Your task to perform on an android device: uninstall "LinkedIn" Image 0: 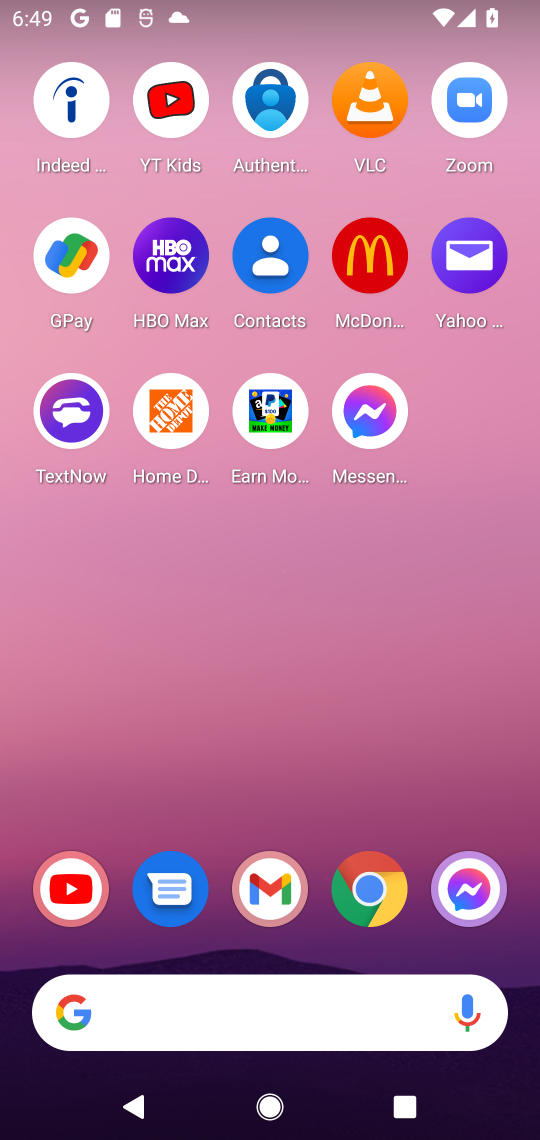
Step 0: press home button
Your task to perform on an android device: uninstall "LinkedIn" Image 1: 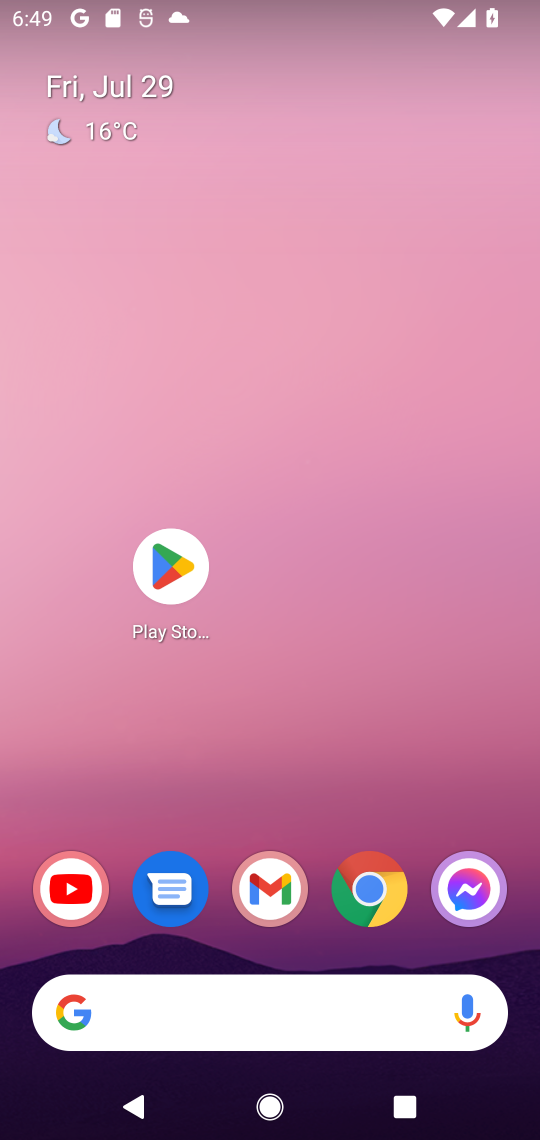
Step 1: click (163, 577)
Your task to perform on an android device: uninstall "LinkedIn" Image 2: 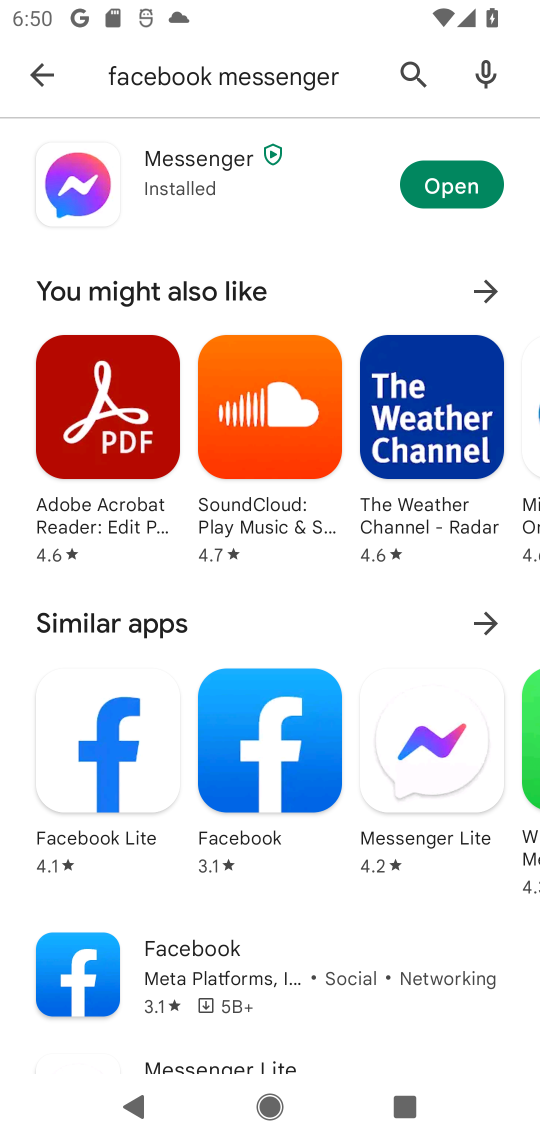
Step 2: click (413, 69)
Your task to perform on an android device: uninstall "LinkedIn" Image 3: 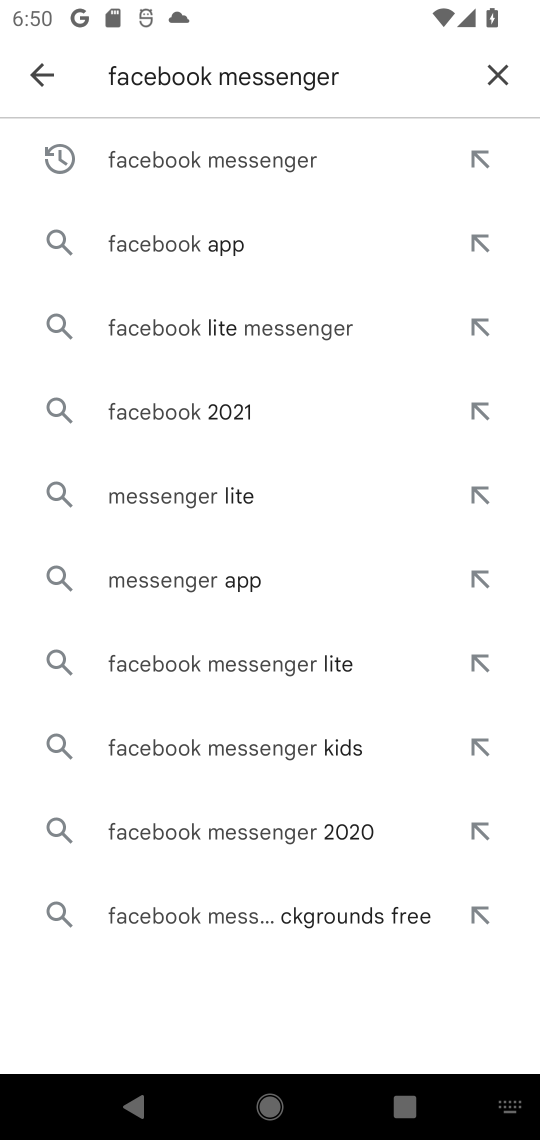
Step 3: click (500, 69)
Your task to perform on an android device: uninstall "LinkedIn" Image 4: 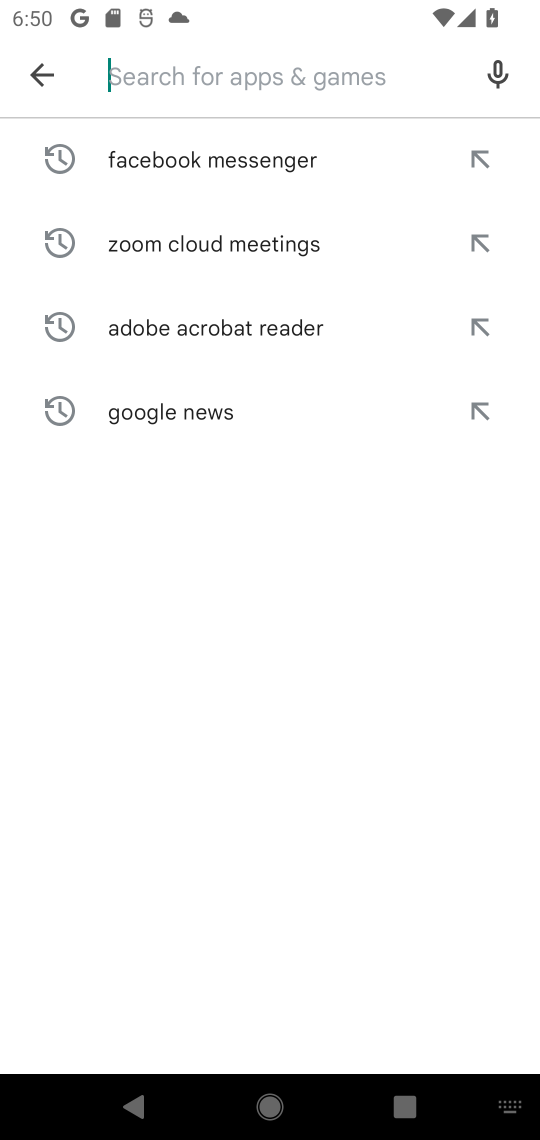
Step 4: type "LinkedIn"
Your task to perform on an android device: uninstall "LinkedIn" Image 5: 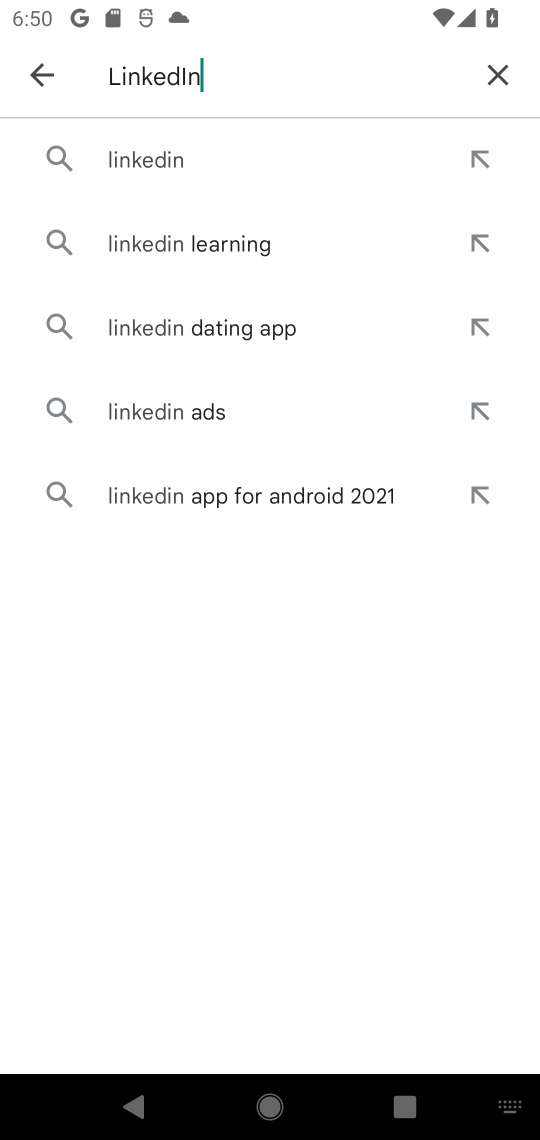
Step 5: click (174, 151)
Your task to perform on an android device: uninstall "LinkedIn" Image 6: 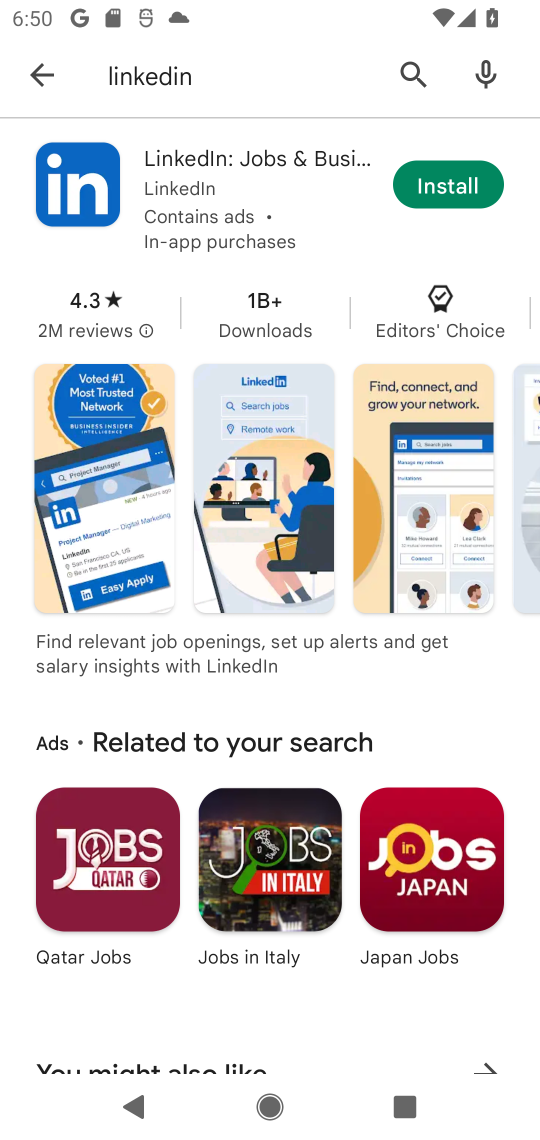
Step 6: task complete